Your task to perform on an android device: Check the news Image 0: 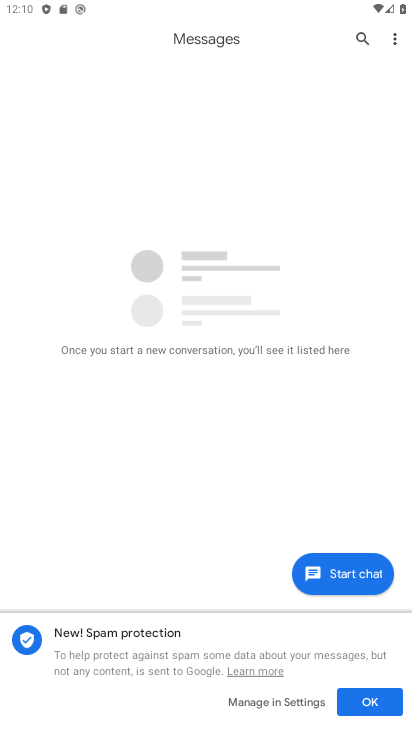
Step 0: press home button
Your task to perform on an android device: Check the news Image 1: 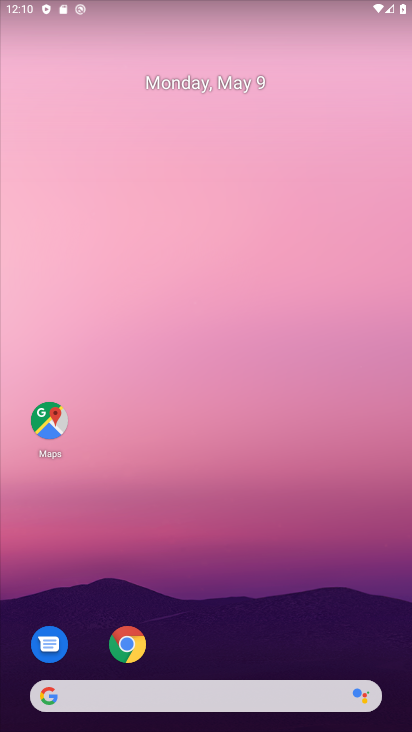
Step 1: task complete